Your task to perform on an android device: toggle show notifications on the lock screen Image 0: 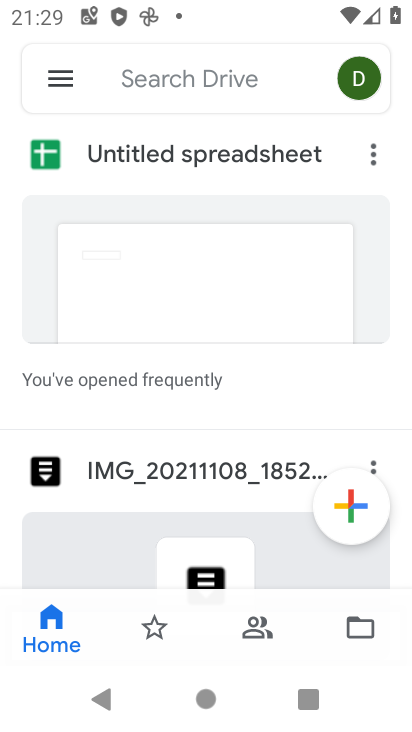
Step 0: press home button
Your task to perform on an android device: toggle show notifications on the lock screen Image 1: 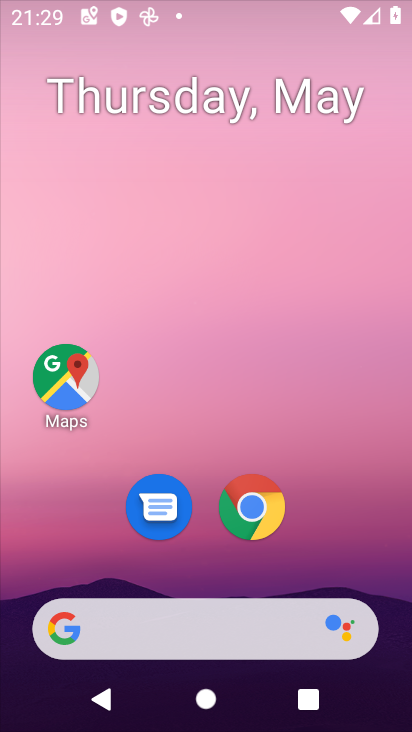
Step 1: drag from (259, 562) to (179, 278)
Your task to perform on an android device: toggle show notifications on the lock screen Image 2: 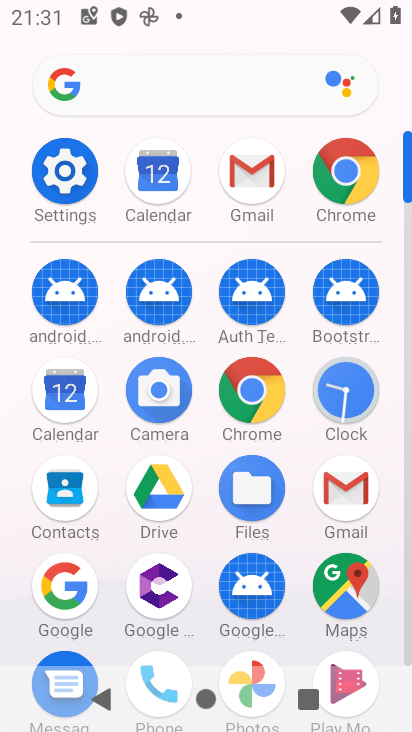
Step 2: click (57, 173)
Your task to perform on an android device: toggle show notifications on the lock screen Image 3: 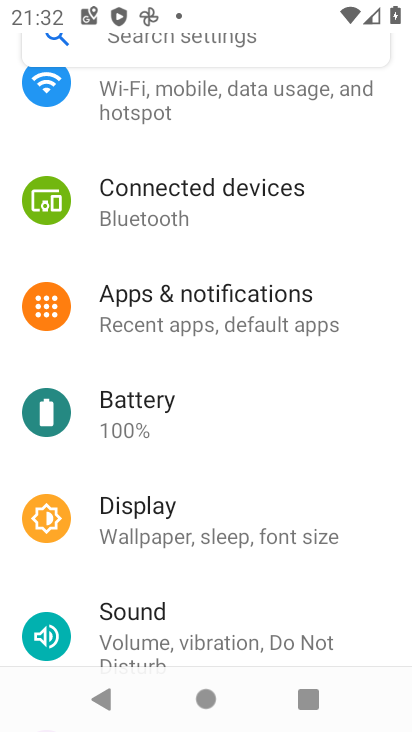
Step 3: click (174, 53)
Your task to perform on an android device: toggle show notifications on the lock screen Image 4: 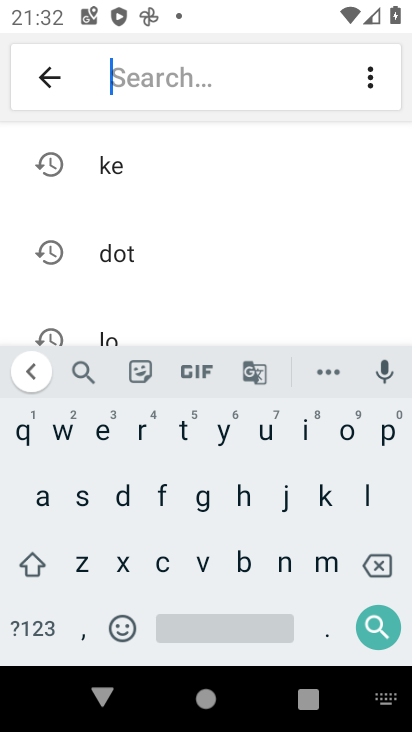
Step 4: click (284, 561)
Your task to perform on an android device: toggle show notifications on the lock screen Image 5: 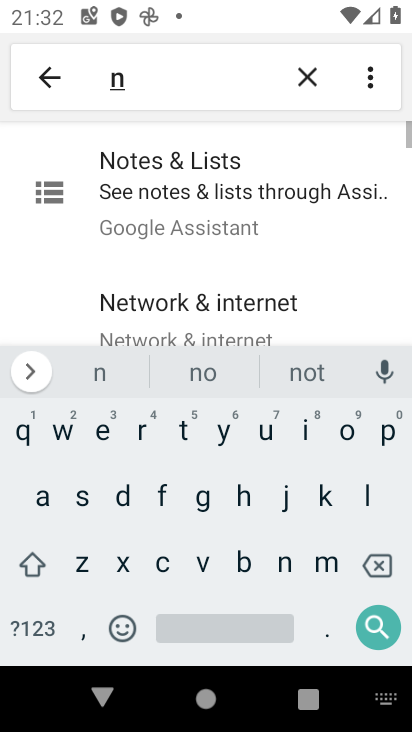
Step 5: click (343, 432)
Your task to perform on an android device: toggle show notifications on the lock screen Image 6: 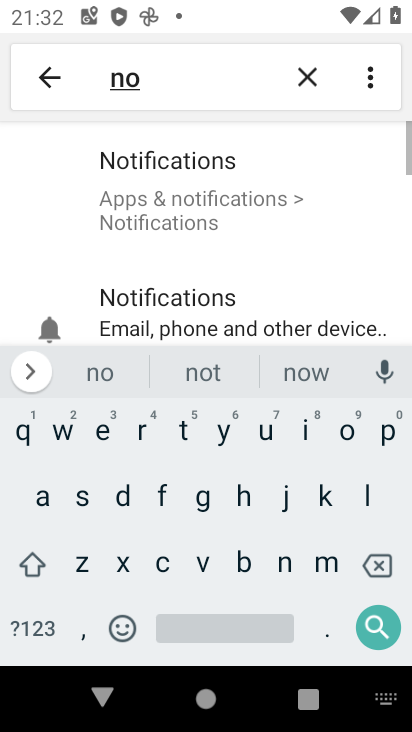
Step 6: click (181, 223)
Your task to perform on an android device: toggle show notifications on the lock screen Image 7: 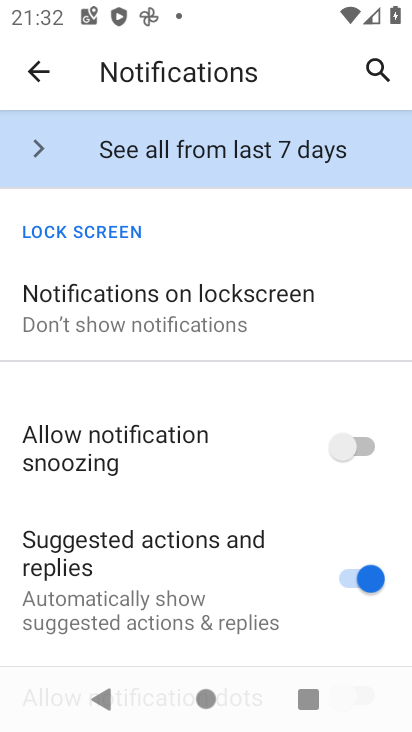
Step 7: click (93, 301)
Your task to perform on an android device: toggle show notifications on the lock screen Image 8: 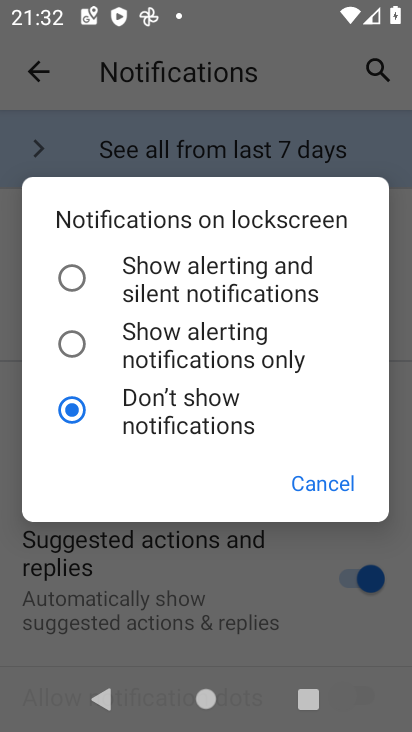
Step 8: click (126, 292)
Your task to perform on an android device: toggle show notifications on the lock screen Image 9: 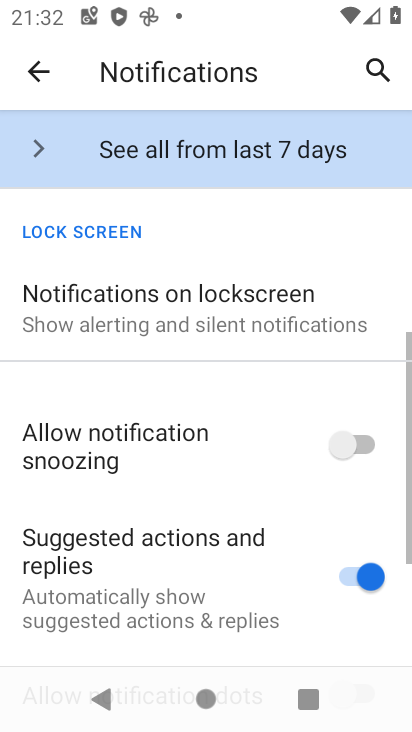
Step 9: task complete